Your task to perform on an android device: Go to battery settings Image 0: 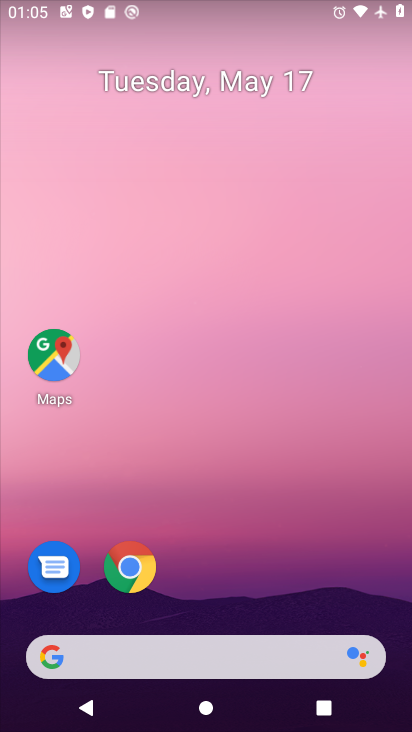
Step 0: drag from (298, 486) to (207, 69)
Your task to perform on an android device: Go to battery settings Image 1: 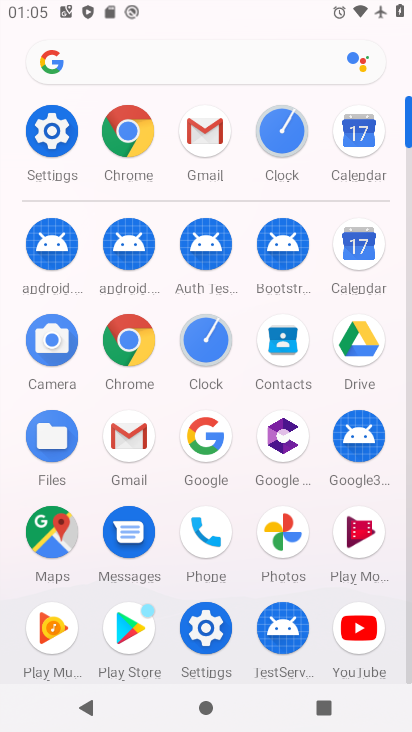
Step 1: click (47, 126)
Your task to perform on an android device: Go to battery settings Image 2: 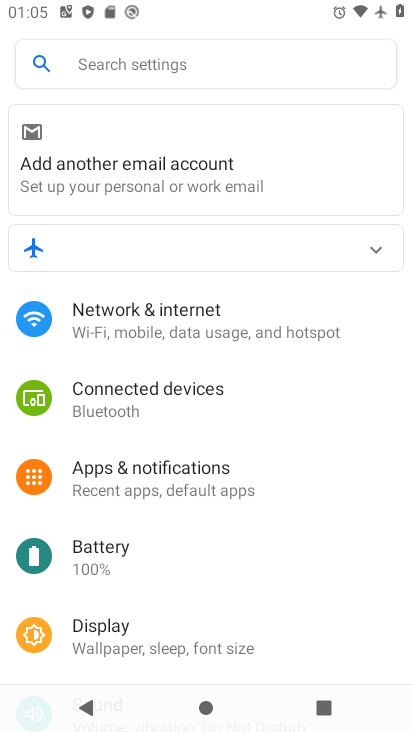
Step 2: click (99, 542)
Your task to perform on an android device: Go to battery settings Image 3: 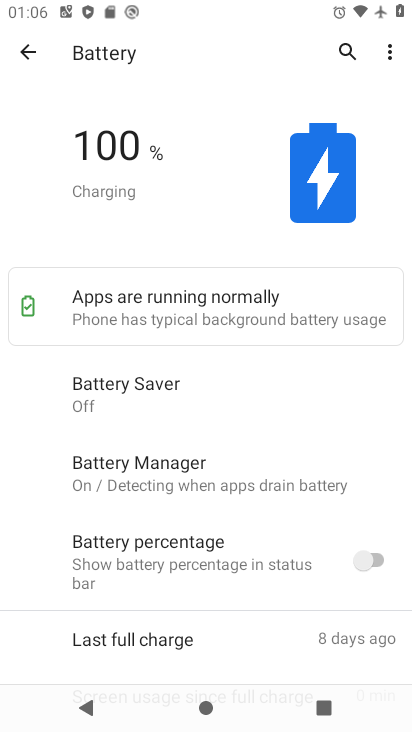
Step 3: task complete